Your task to perform on an android device: Show me popular games on the Play Store Image 0: 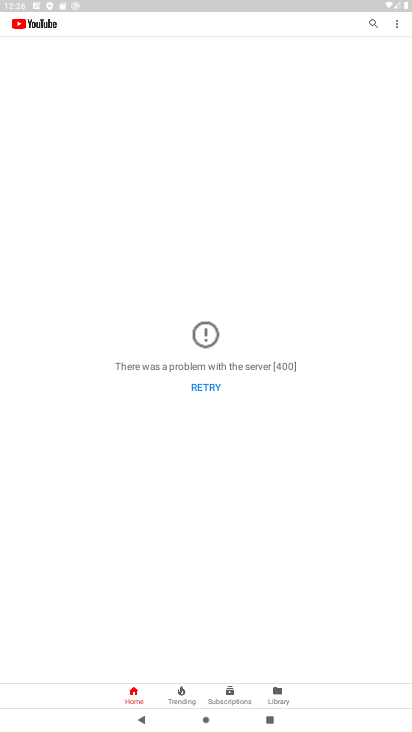
Step 0: press home button
Your task to perform on an android device: Show me popular games on the Play Store Image 1: 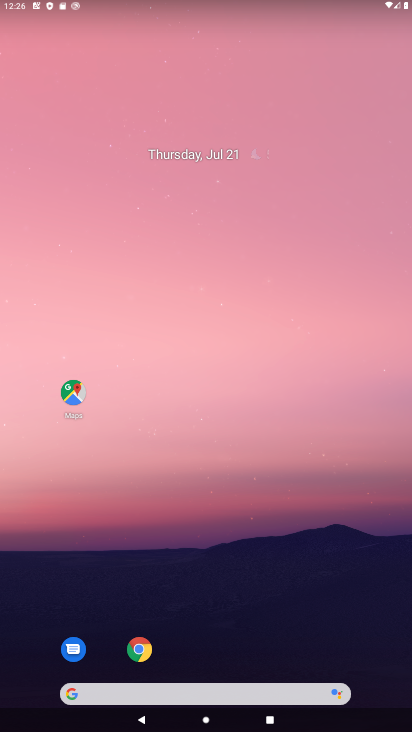
Step 1: drag from (380, 670) to (311, 153)
Your task to perform on an android device: Show me popular games on the Play Store Image 2: 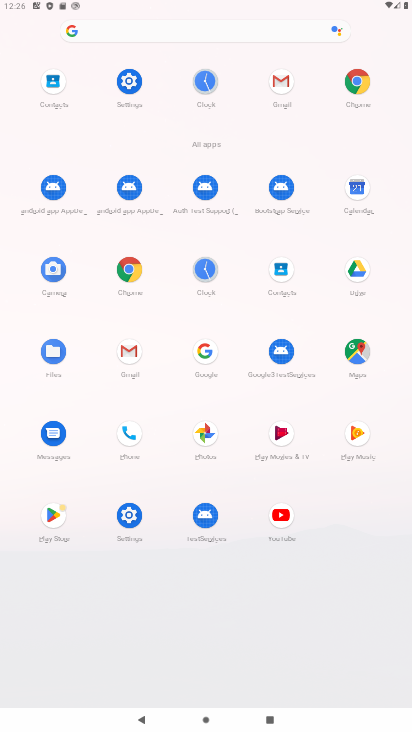
Step 2: click (53, 513)
Your task to perform on an android device: Show me popular games on the Play Store Image 3: 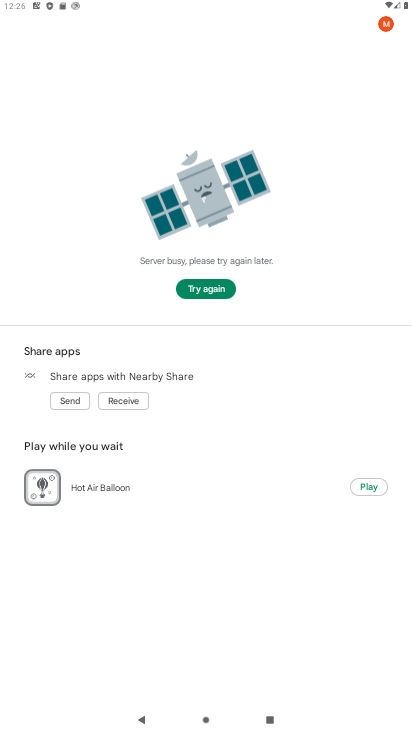
Step 3: click (201, 291)
Your task to perform on an android device: Show me popular games on the Play Store Image 4: 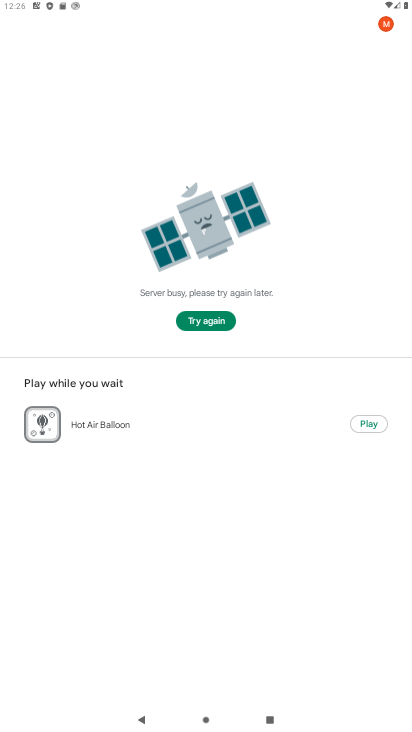
Step 4: click (209, 319)
Your task to perform on an android device: Show me popular games on the Play Store Image 5: 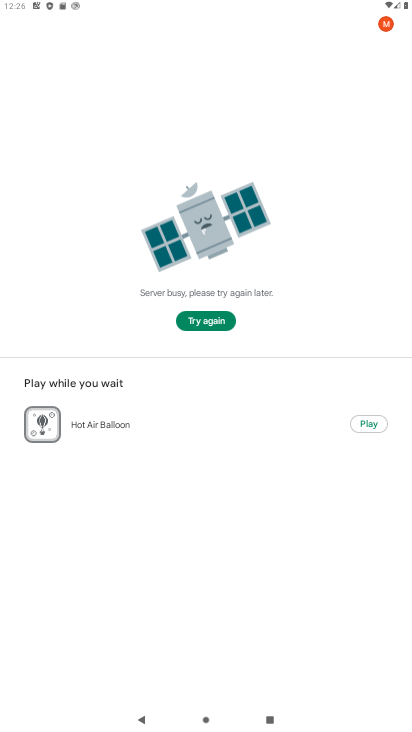
Step 5: click (196, 321)
Your task to perform on an android device: Show me popular games on the Play Store Image 6: 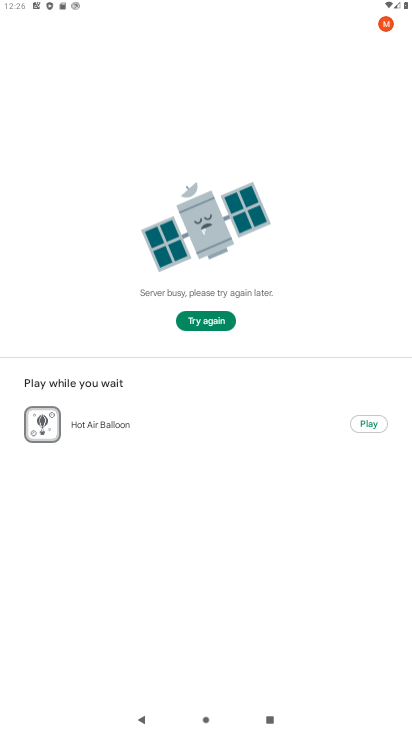
Step 6: click (208, 320)
Your task to perform on an android device: Show me popular games on the Play Store Image 7: 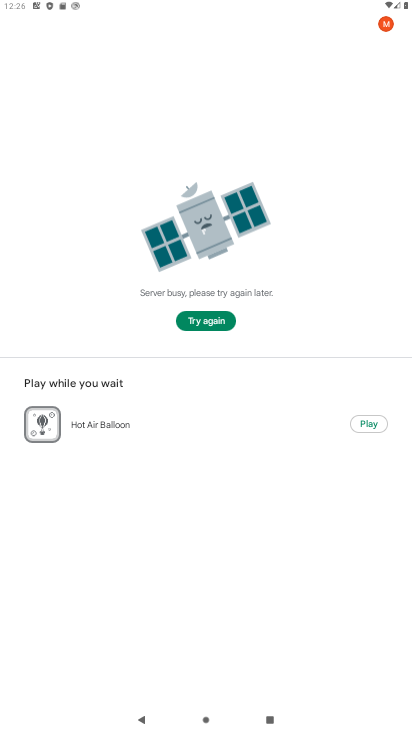
Step 7: click (221, 320)
Your task to perform on an android device: Show me popular games on the Play Store Image 8: 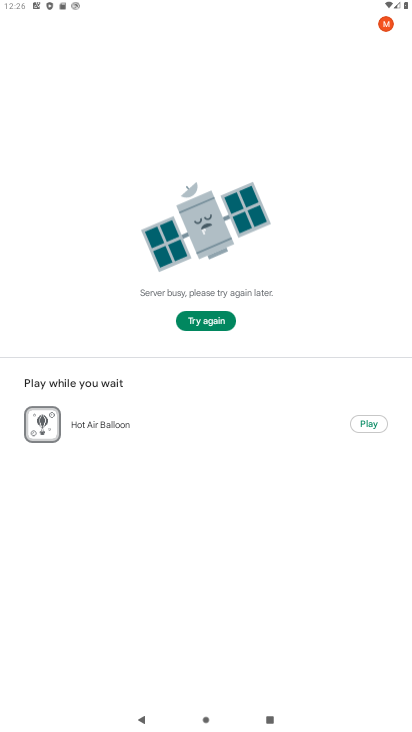
Step 8: click (189, 321)
Your task to perform on an android device: Show me popular games on the Play Store Image 9: 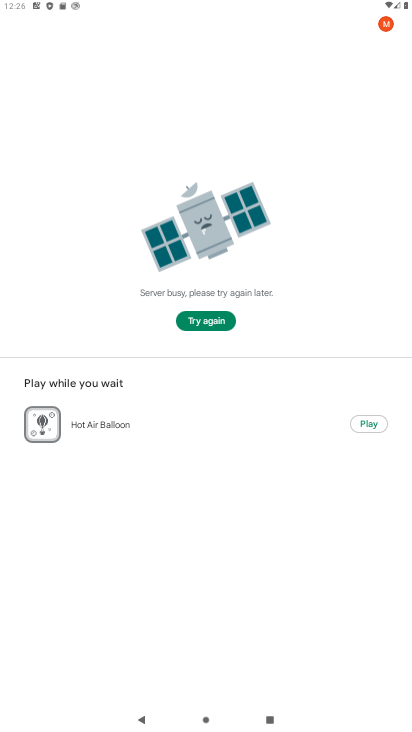
Step 9: click (208, 322)
Your task to perform on an android device: Show me popular games on the Play Store Image 10: 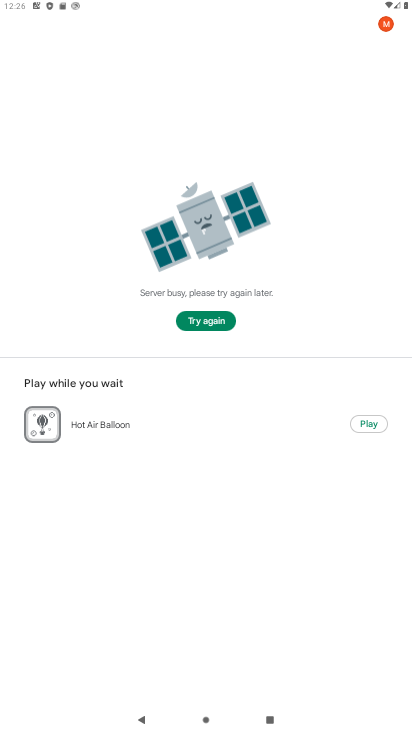
Step 10: task complete